Your task to perform on an android device: Nike Air Max 2020 shoes on Nike.com Image 0: 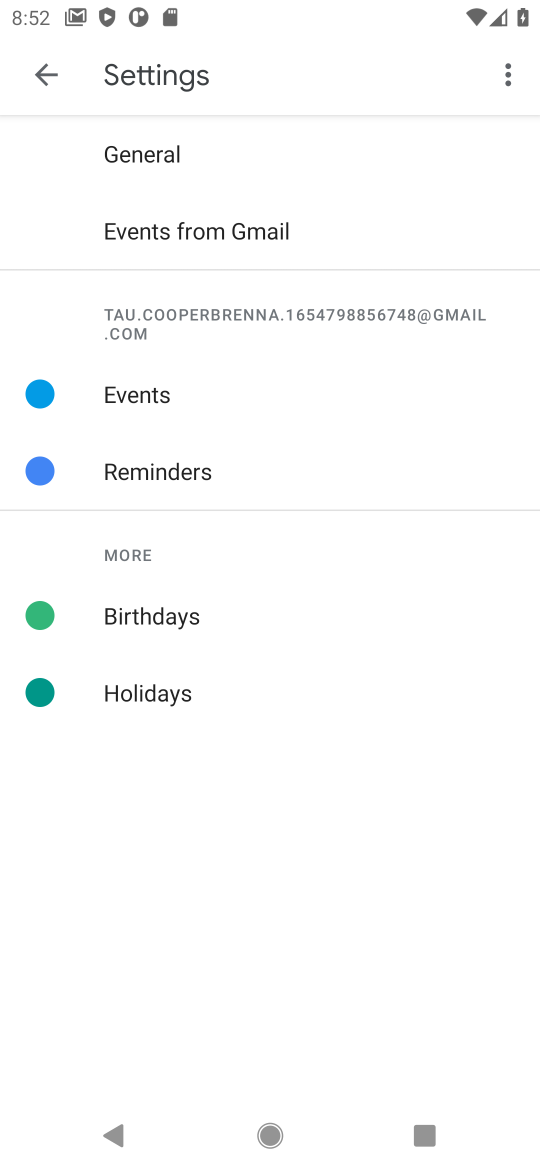
Step 0: press home button
Your task to perform on an android device: Nike Air Max 2020 shoes on Nike.com Image 1: 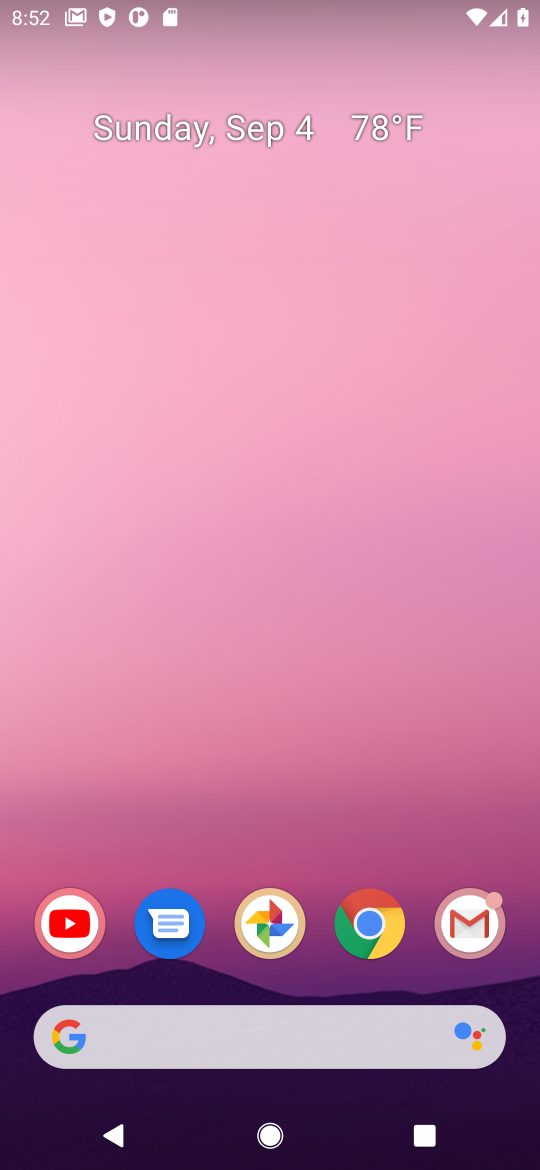
Step 1: click (140, 1029)
Your task to perform on an android device: Nike Air Max 2020 shoes on Nike.com Image 2: 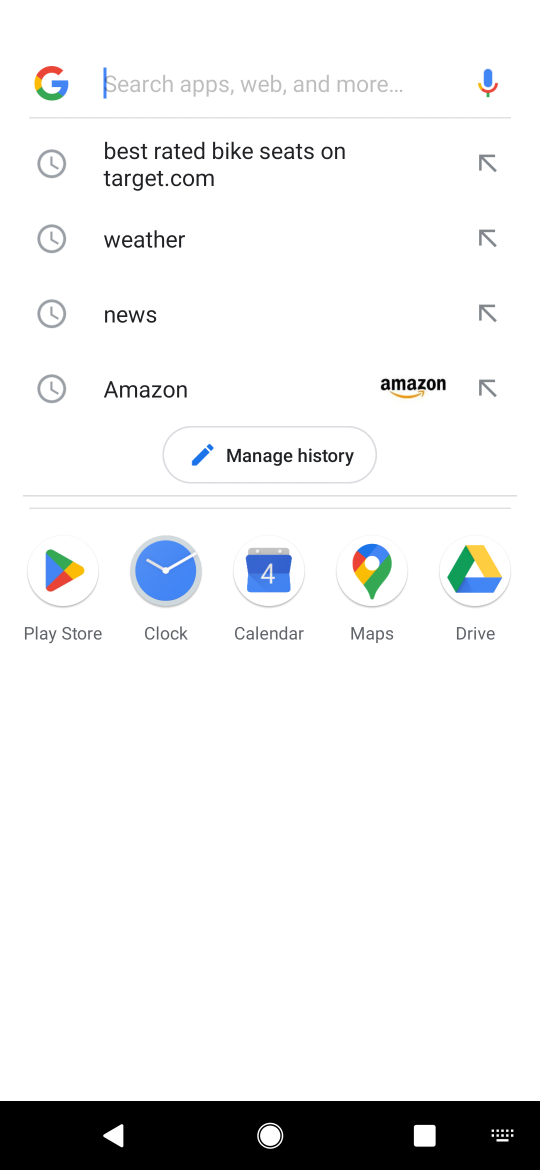
Step 2: type "Nike Air Max 2020 shoes on Nike.com"
Your task to perform on an android device: Nike Air Max 2020 shoes on Nike.com Image 3: 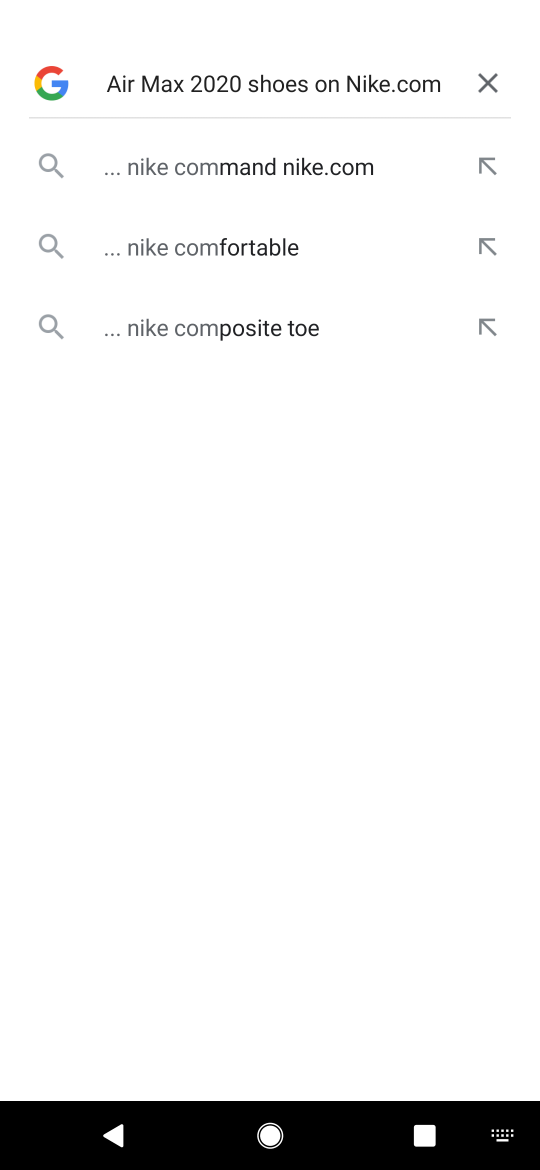
Step 3: click (244, 180)
Your task to perform on an android device: Nike Air Max 2020 shoes on Nike.com Image 4: 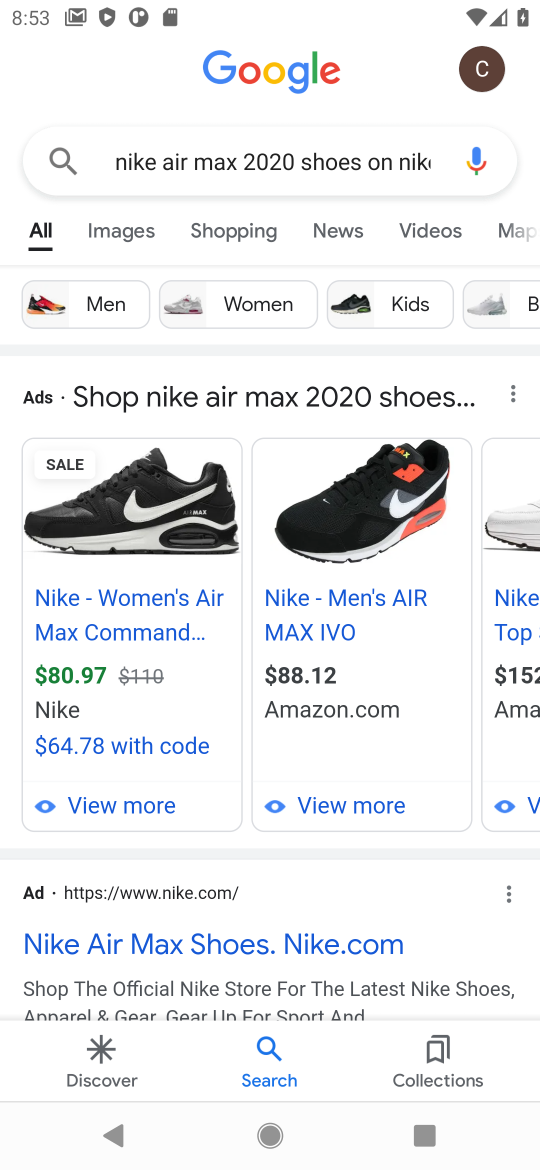
Step 4: task complete